Your task to perform on an android device: clear history in the chrome app Image 0: 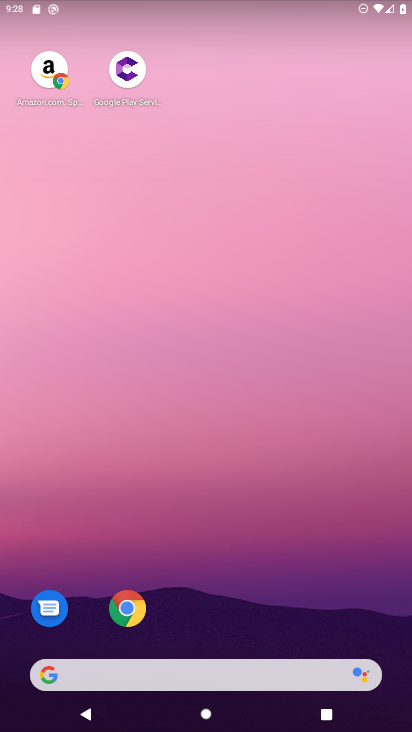
Step 0: drag from (199, 568) to (247, 16)
Your task to perform on an android device: clear history in the chrome app Image 1: 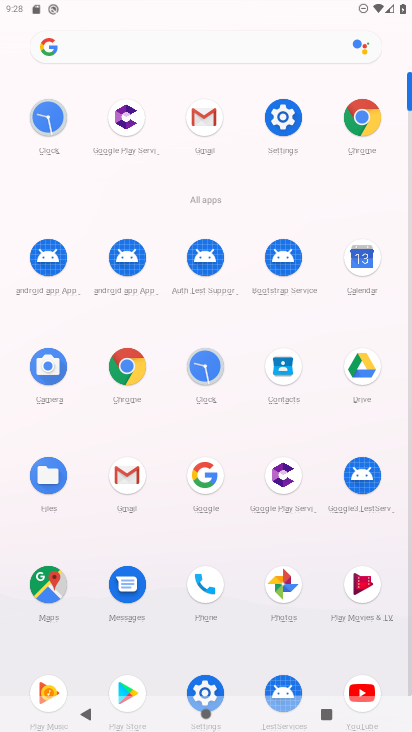
Step 1: click (128, 374)
Your task to perform on an android device: clear history in the chrome app Image 2: 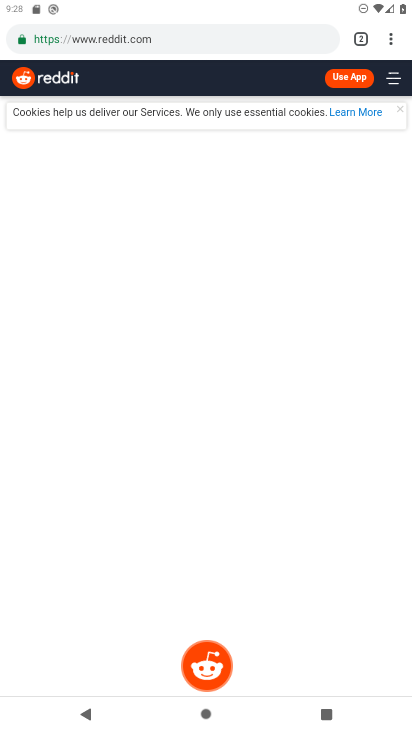
Step 2: click (391, 32)
Your task to perform on an android device: clear history in the chrome app Image 3: 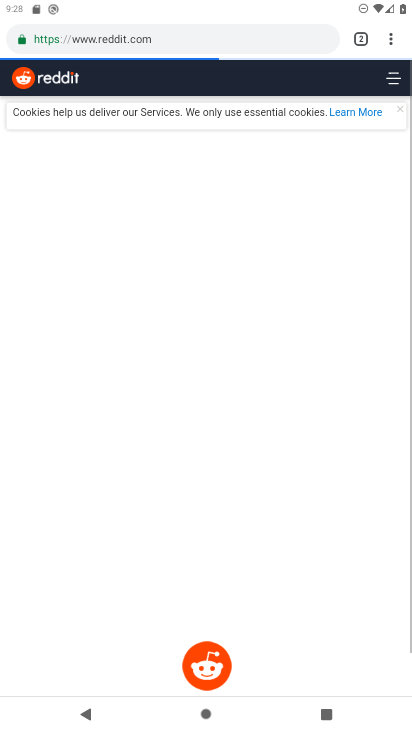
Step 3: drag from (393, 42) to (271, 222)
Your task to perform on an android device: clear history in the chrome app Image 4: 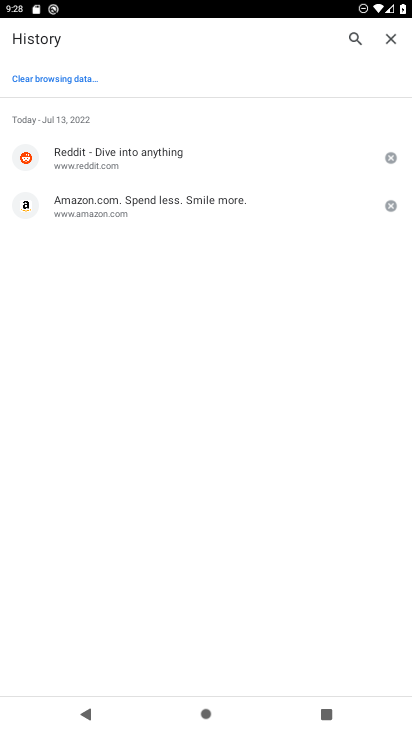
Step 4: click (61, 75)
Your task to perform on an android device: clear history in the chrome app Image 5: 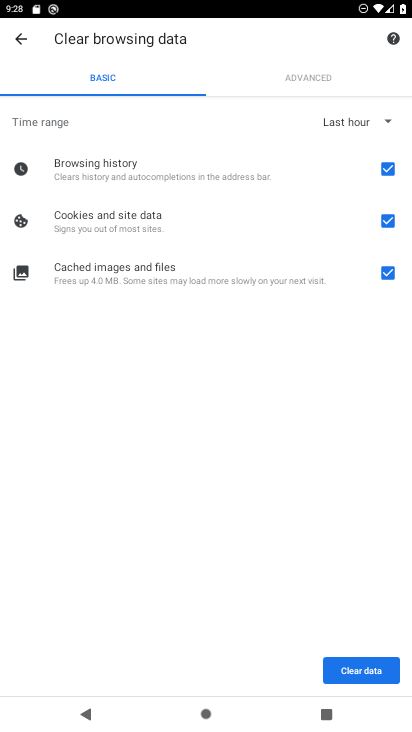
Step 5: click (369, 673)
Your task to perform on an android device: clear history in the chrome app Image 6: 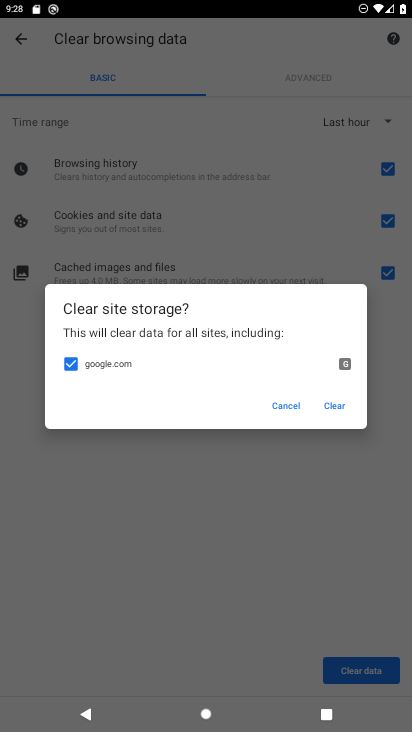
Step 6: click (330, 401)
Your task to perform on an android device: clear history in the chrome app Image 7: 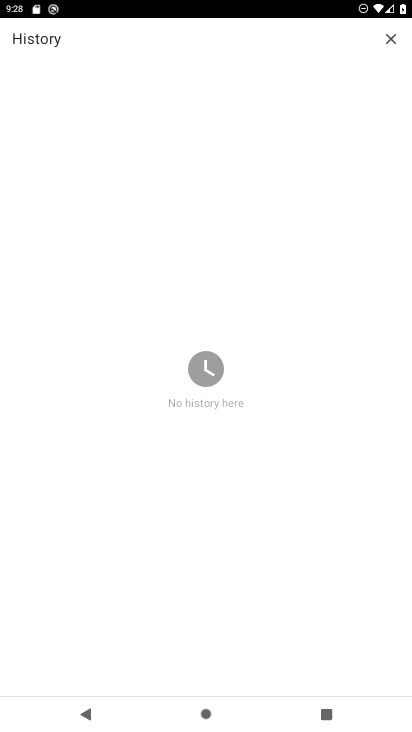
Step 7: task complete